Your task to perform on an android device: allow cookies in the chrome app Image 0: 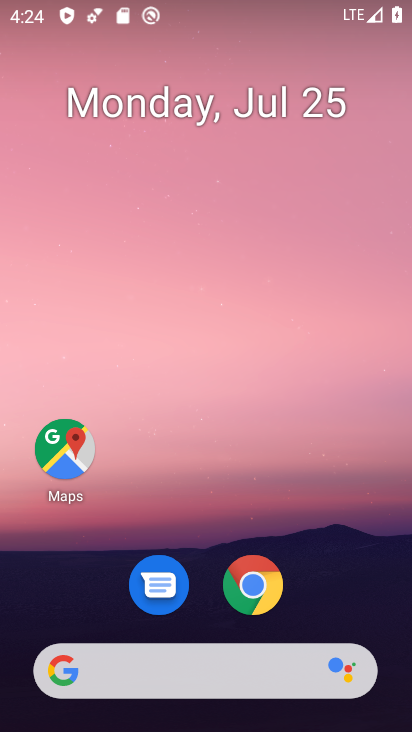
Step 0: click (249, 582)
Your task to perform on an android device: allow cookies in the chrome app Image 1: 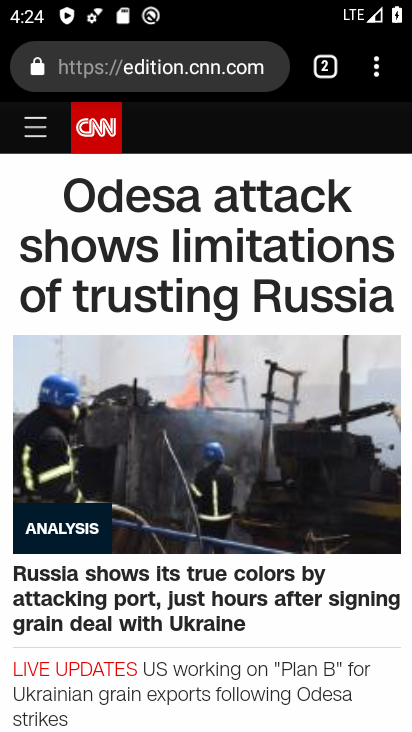
Step 1: click (376, 74)
Your task to perform on an android device: allow cookies in the chrome app Image 2: 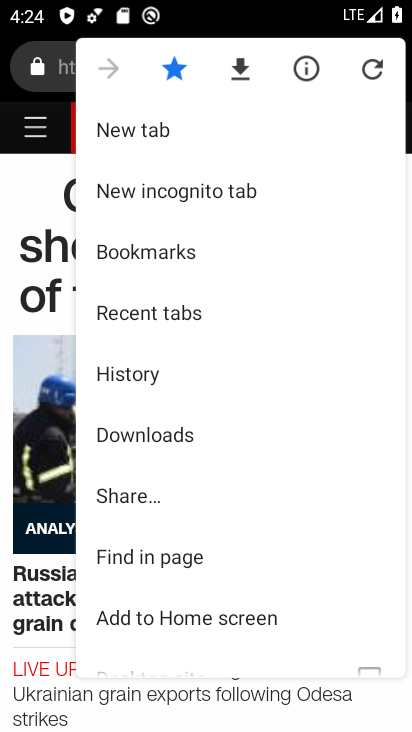
Step 2: drag from (276, 544) to (261, 237)
Your task to perform on an android device: allow cookies in the chrome app Image 3: 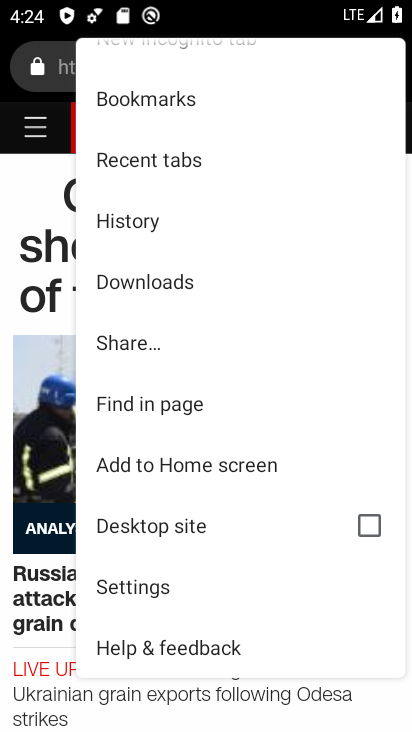
Step 3: click (153, 588)
Your task to perform on an android device: allow cookies in the chrome app Image 4: 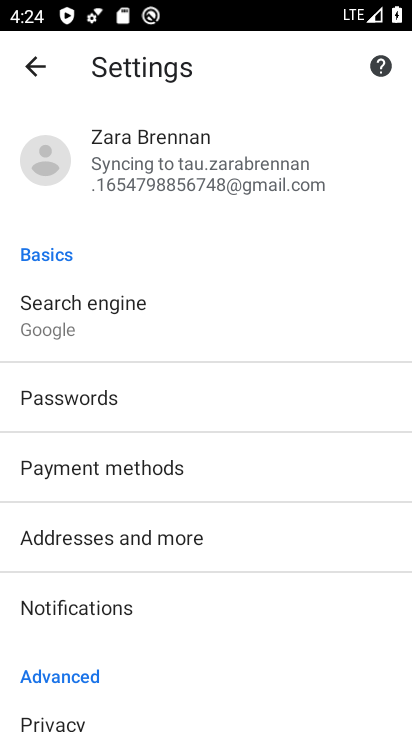
Step 4: drag from (260, 618) to (256, 368)
Your task to perform on an android device: allow cookies in the chrome app Image 5: 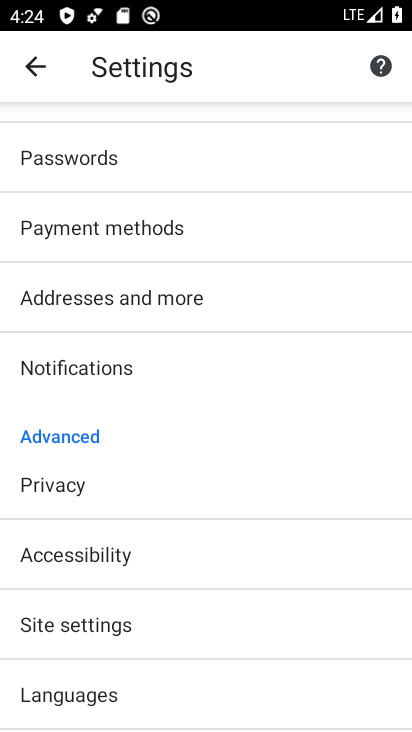
Step 5: click (140, 633)
Your task to perform on an android device: allow cookies in the chrome app Image 6: 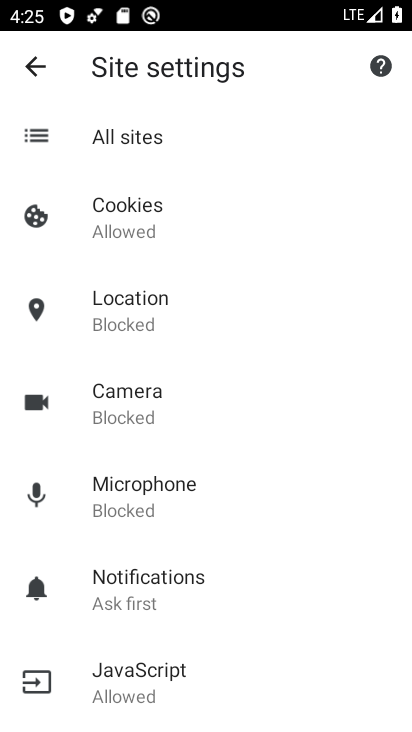
Step 6: click (167, 219)
Your task to perform on an android device: allow cookies in the chrome app Image 7: 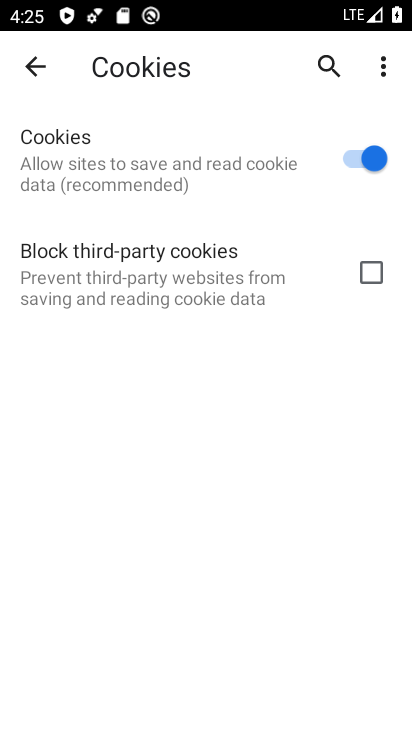
Step 7: task complete